Your task to perform on an android device: Open wifi settings Image 0: 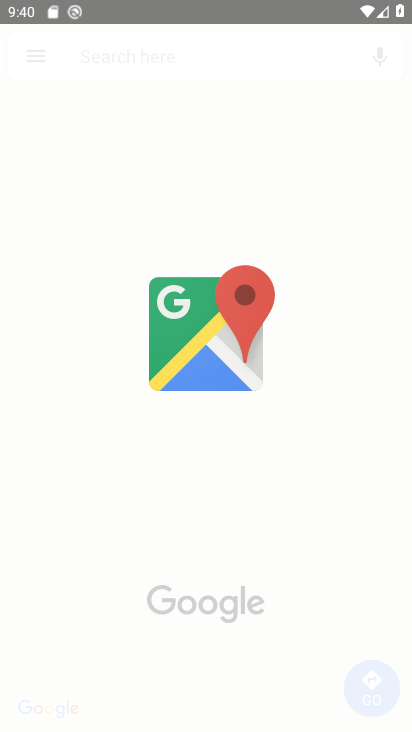
Step 0: drag from (227, 525) to (201, 10)
Your task to perform on an android device: Open wifi settings Image 1: 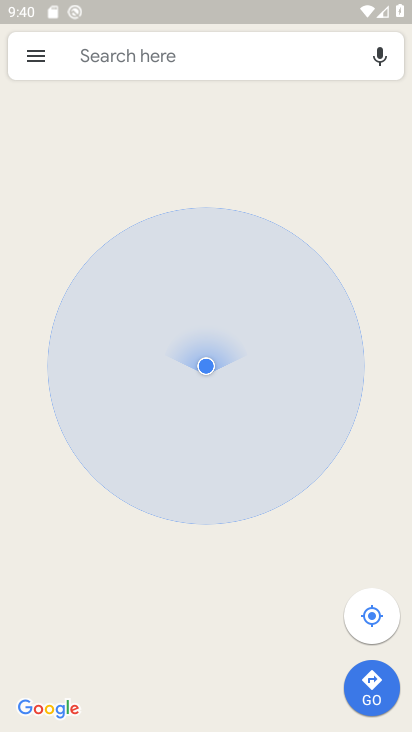
Step 1: press back button
Your task to perform on an android device: Open wifi settings Image 2: 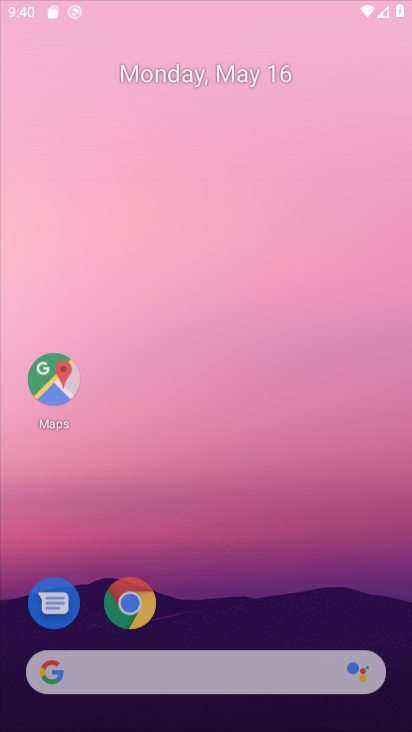
Step 2: drag from (199, 576) to (148, 51)
Your task to perform on an android device: Open wifi settings Image 3: 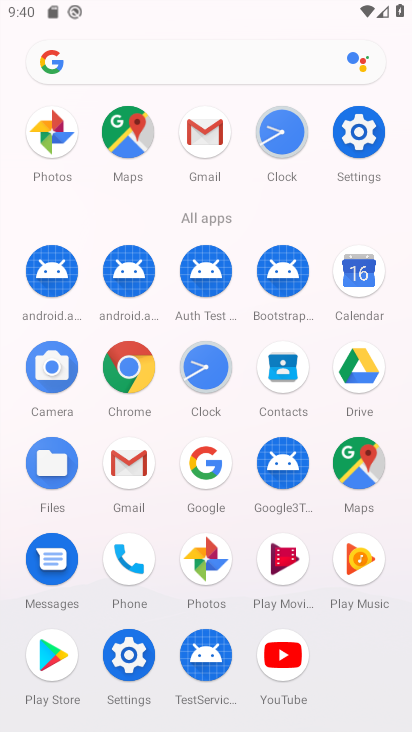
Step 3: click (127, 654)
Your task to perform on an android device: Open wifi settings Image 4: 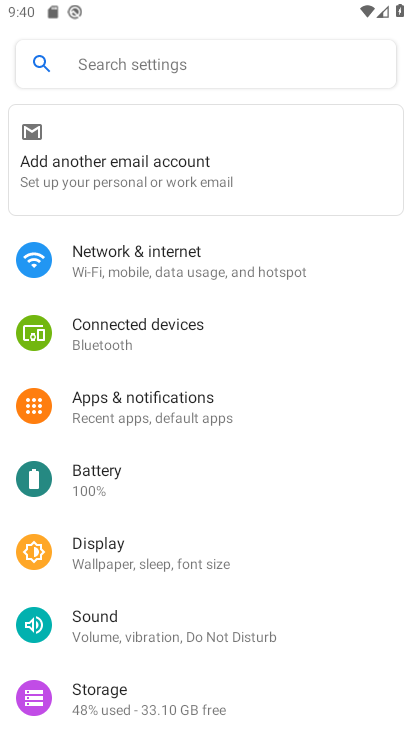
Step 4: drag from (267, 581) to (292, 162)
Your task to perform on an android device: Open wifi settings Image 5: 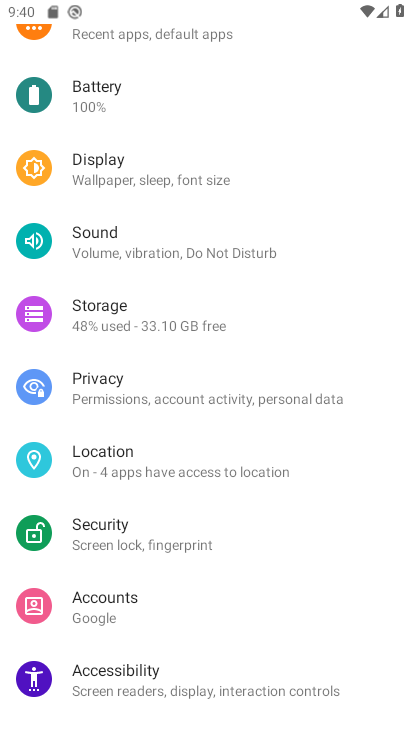
Step 5: drag from (245, 516) to (246, 99)
Your task to perform on an android device: Open wifi settings Image 6: 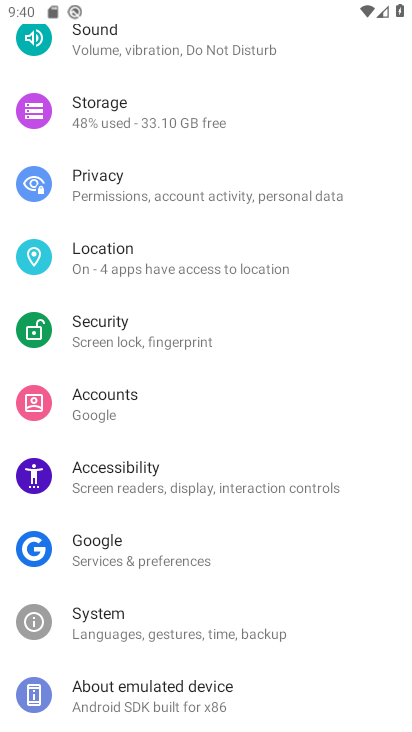
Step 6: drag from (231, 482) to (240, 135)
Your task to perform on an android device: Open wifi settings Image 7: 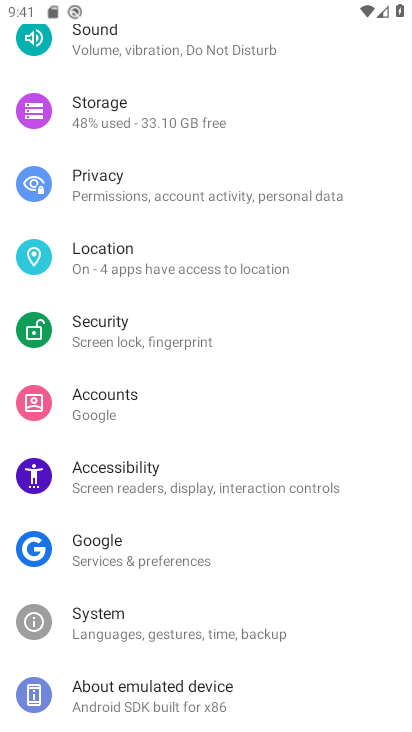
Step 7: drag from (268, 437) to (259, 98)
Your task to perform on an android device: Open wifi settings Image 8: 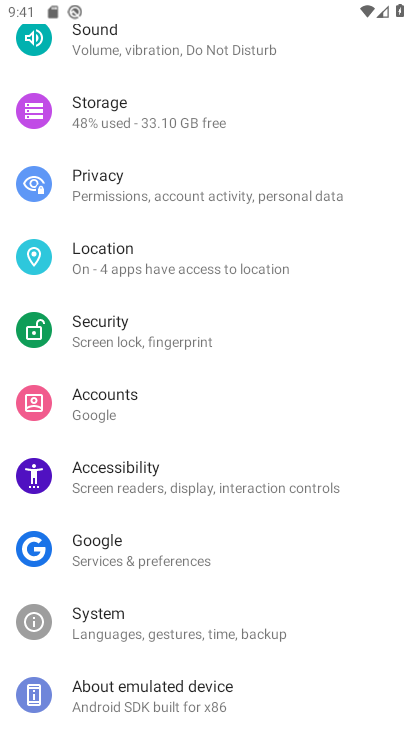
Step 8: drag from (221, 123) to (219, 528)
Your task to perform on an android device: Open wifi settings Image 9: 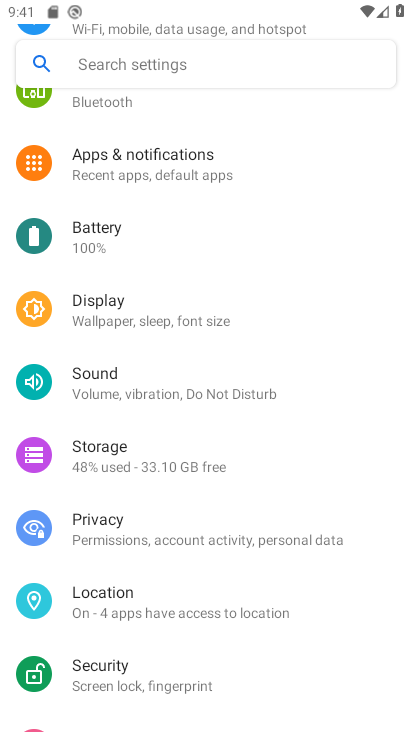
Step 9: drag from (261, 199) to (239, 612)
Your task to perform on an android device: Open wifi settings Image 10: 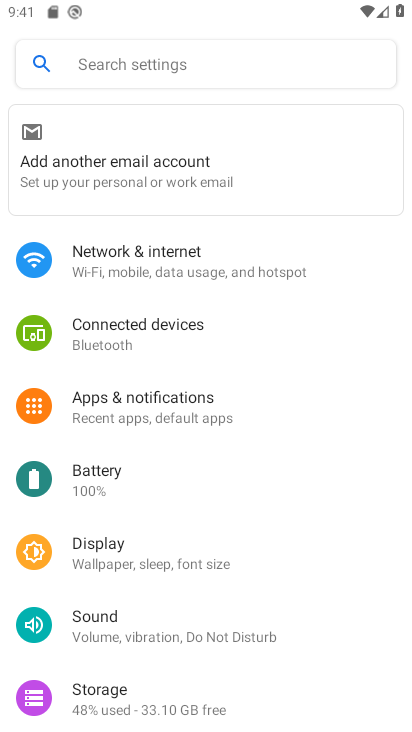
Step 10: click (227, 261)
Your task to perform on an android device: Open wifi settings Image 11: 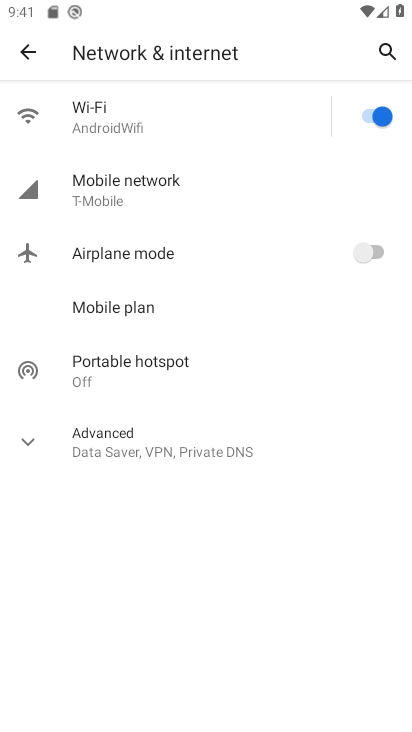
Step 11: click (36, 447)
Your task to perform on an android device: Open wifi settings Image 12: 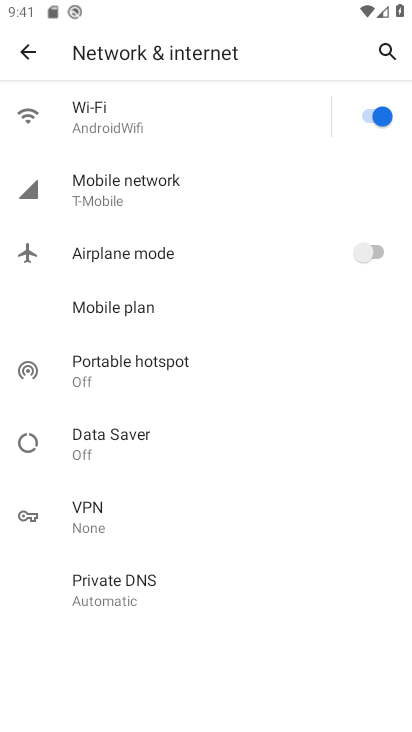
Step 12: task complete